Your task to perform on an android device: Open privacy settings Image 0: 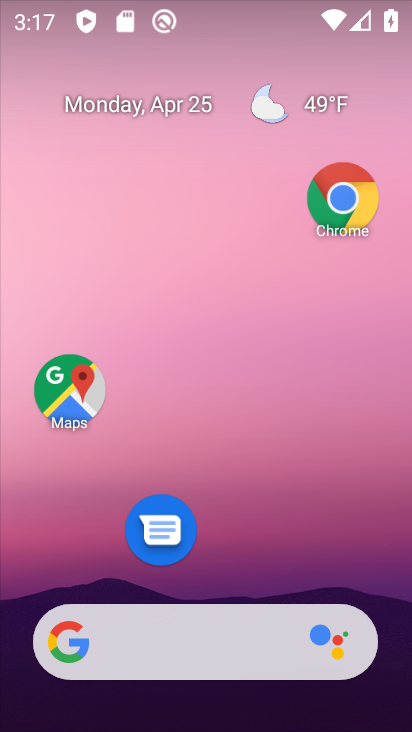
Step 0: drag from (142, 613) to (279, 128)
Your task to perform on an android device: Open privacy settings Image 1: 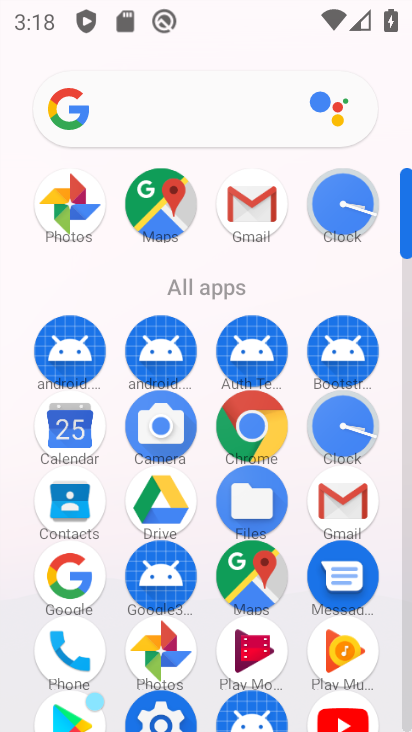
Step 1: drag from (195, 592) to (311, 180)
Your task to perform on an android device: Open privacy settings Image 2: 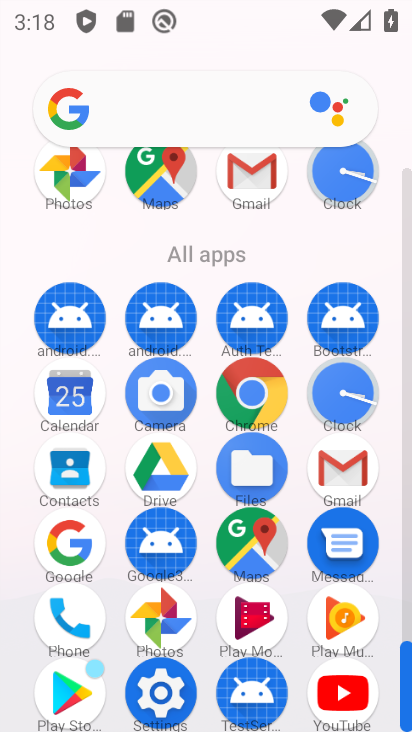
Step 2: click (162, 688)
Your task to perform on an android device: Open privacy settings Image 3: 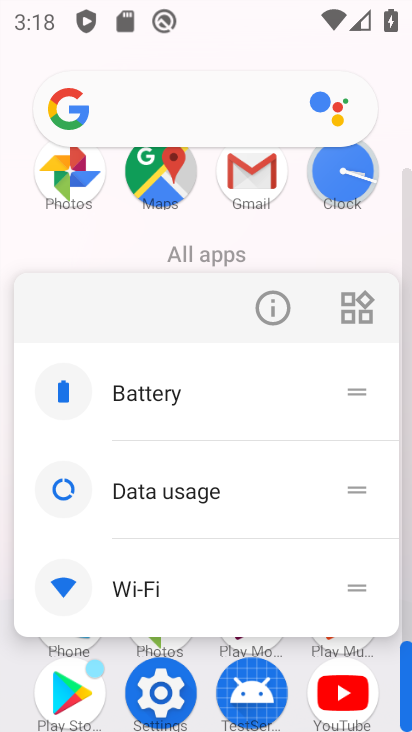
Step 3: click (159, 693)
Your task to perform on an android device: Open privacy settings Image 4: 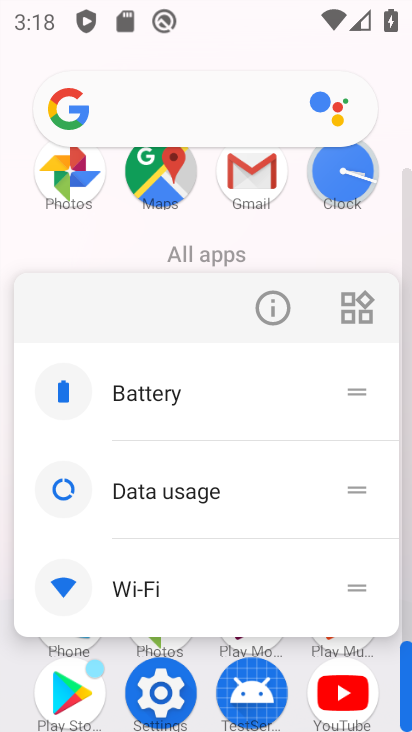
Step 4: click (158, 692)
Your task to perform on an android device: Open privacy settings Image 5: 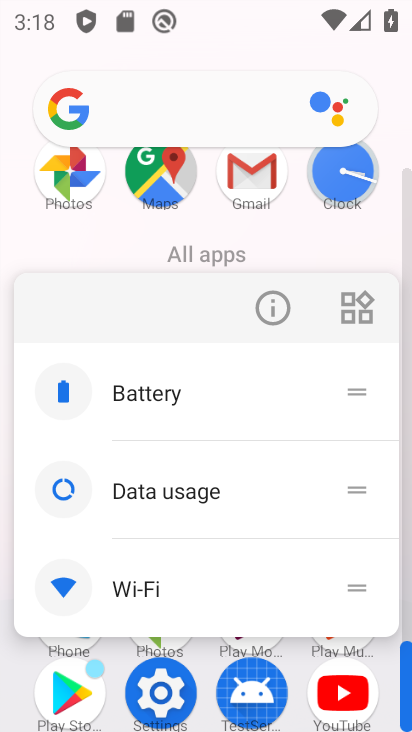
Step 5: click (151, 707)
Your task to perform on an android device: Open privacy settings Image 6: 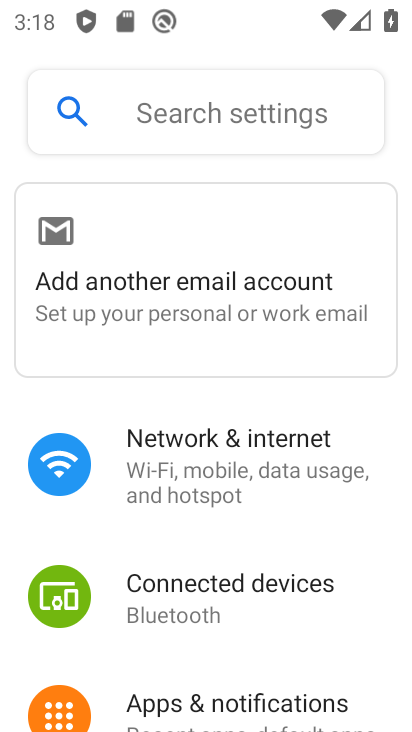
Step 6: drag from (171, 661) to (264, 305)
Your task to perform on an android device: Open privacy settings Image 7: 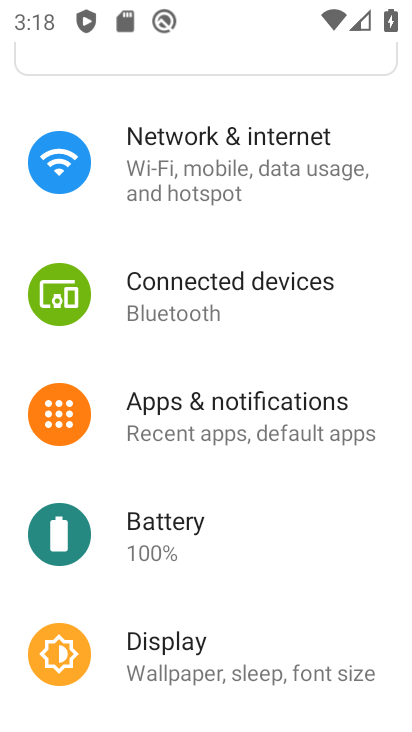
Step 7: drag from (266, 451) to (345, 161)
Your task to perform on an android device: Open privacy settings Image 8: 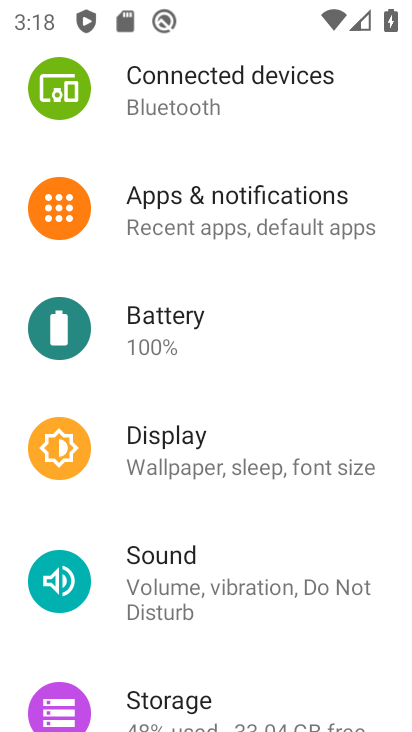
Step 8: drag from (251, 615) to (357, 236)
Your task to perform on an android device: Open privacy settings Image 9: 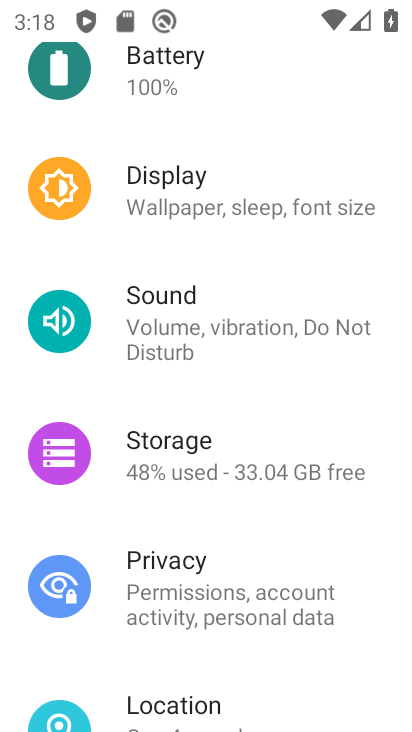
Step 9: click (195, 560)
Your task to perform on an android device: Open privacy settings Image 10: 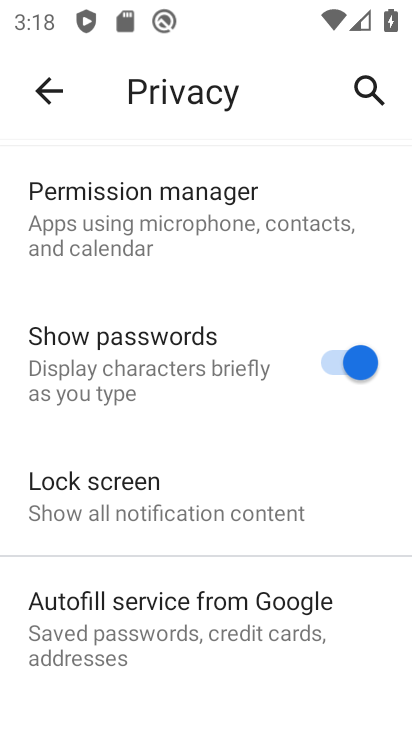
Step 10: task complete